Your task to perform on an android device: move an email to a new category in the gmail app Image 0: 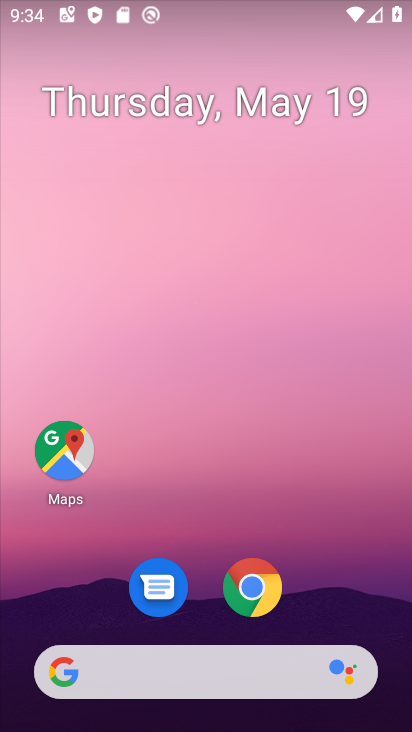
Step 0: drag from (210, 670) to (23, 29)
Your task to perform on an android device: move an email to a new category in the gmail app Image 1: 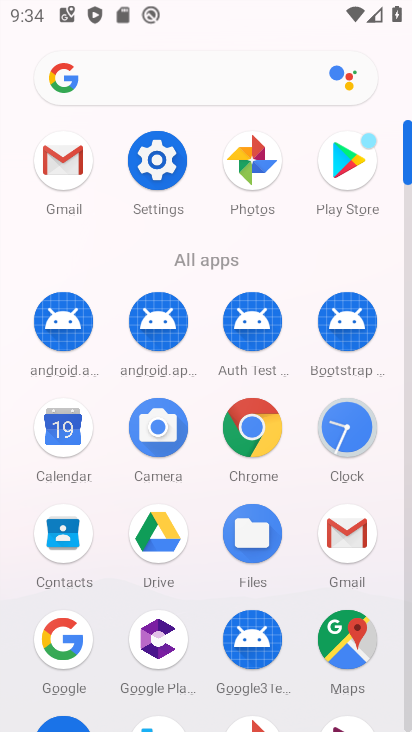
Step 1: click (353, 521)
Your task to perform on an android device: move an email to a new category in the gmail app Image 2: 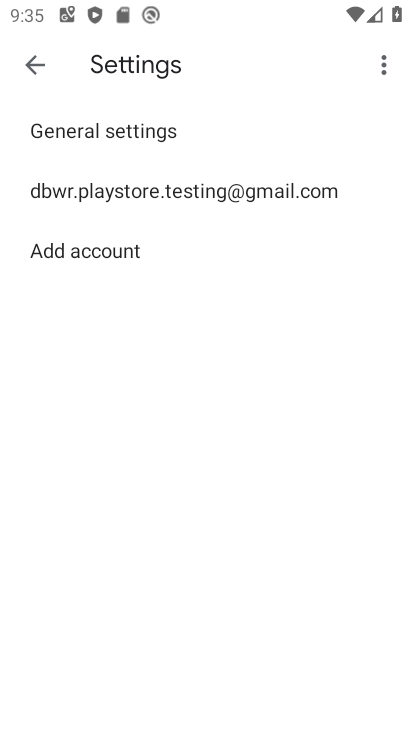
Step 2: click (30, 65)
Your task to perform on an android device: move an email to a new category in the gmail app Image 3: 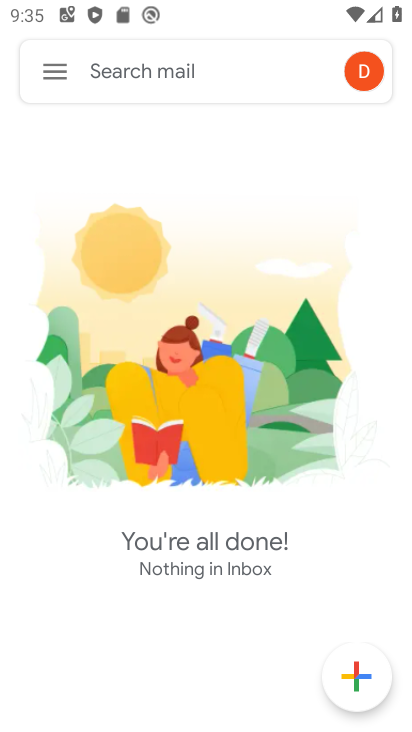
Step 3: click (46, 68)
Your task to perform on an android device: move an email to a new category in the gmail app Image 4: 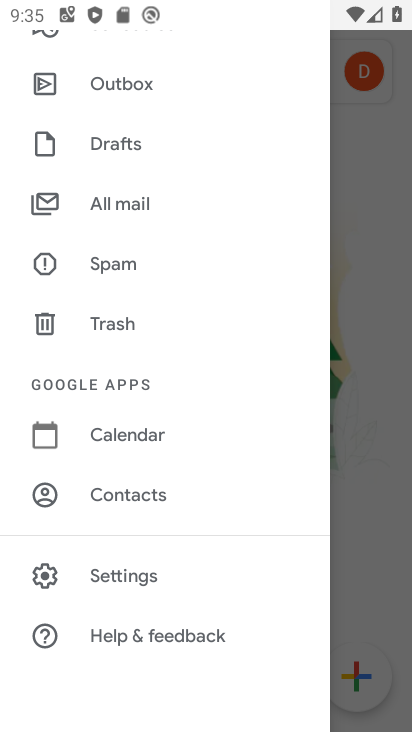
Step 4: click (112, 209)
Your task to perform on an android device: move an email to a new category in the gmail app Image 5: 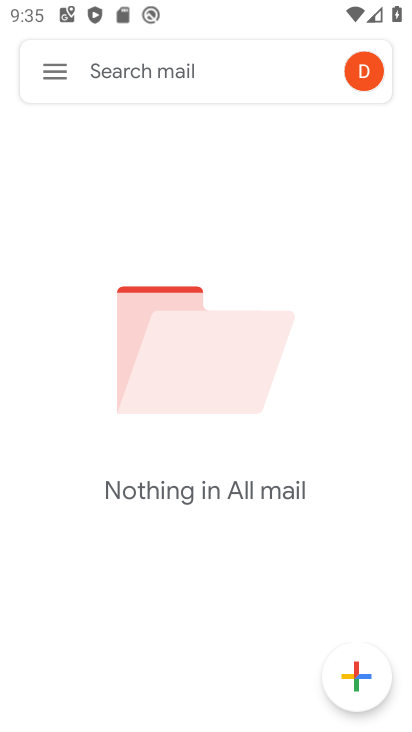
Step 5: task complete